Your task to perform on an android device: Add "duracell triple a" to the cart on costco.com, then select checkout. Image 0: 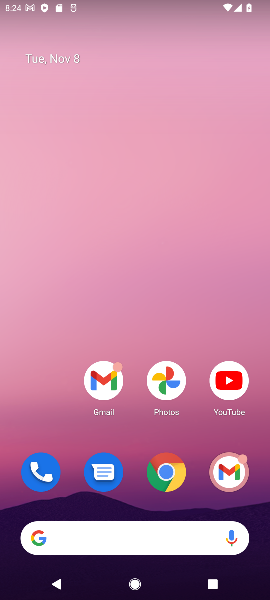
Step 0: click (167, 472)
Your task to perform on an android device: Add "duracell triple a" to the cart on costco.com, then select checkout. Image 1: 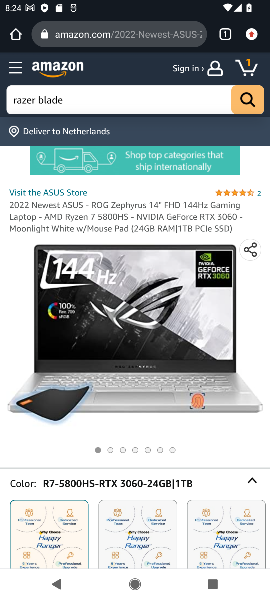
Step 1: click (136, 31)
Your task to perform on an android device: Add "duracell triple a" to the cart on costco.com, then select checkout. Image 2: 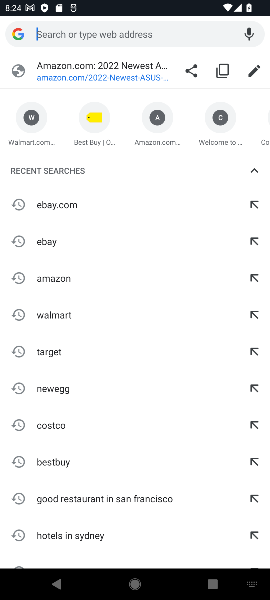
Step 2: click (41, 424)
Your task to perform on an android device: Add "duracell triple a" to the cart on costco.com, then select checkout. Image 3: 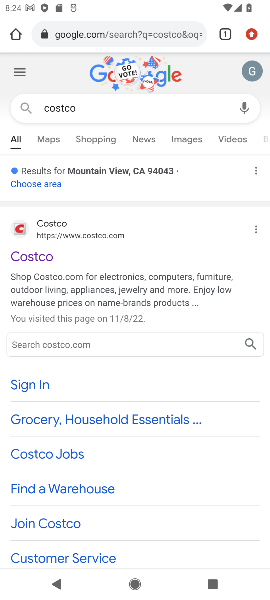
Step 3: click (31, 257)
Your task to perform on an android device: Add "duracell triple a" to the cart on costco.com, then select checkout. Image 4: 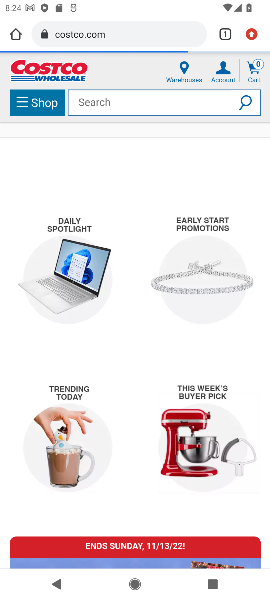
Step 4: click (133, 101)
Your task to perform on an android device: Add "duracell triple a" to the cart on costco.com, then select checkout. Image 5: 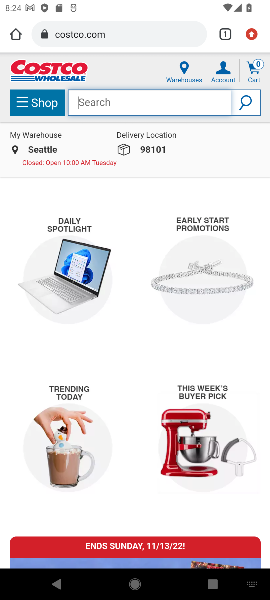
Step 5: type "duracell triple a"
Your task to perform on an android device: Add "duracell triple a" to the cart on costco.com, then select checkout. Image 6: 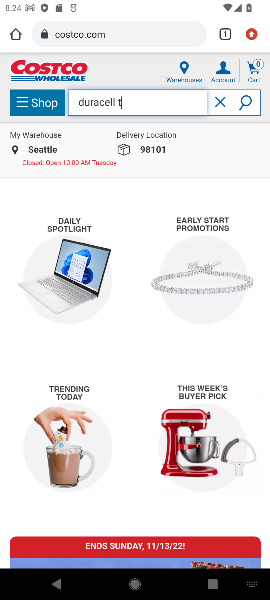
Step 6: press enter
Your task to perform on an android device: Add "duracell triple a" to the cart on costco.com, then select checkout. Image 7: 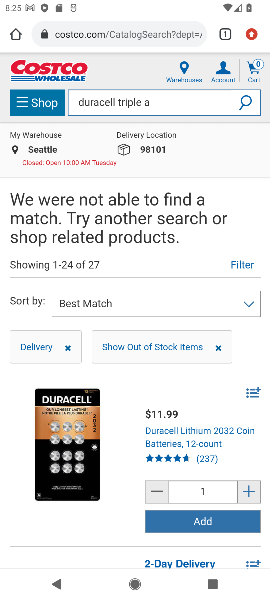
Step 7: task complete